Your task to perform on an android device: Do I have any events today? Image 0: 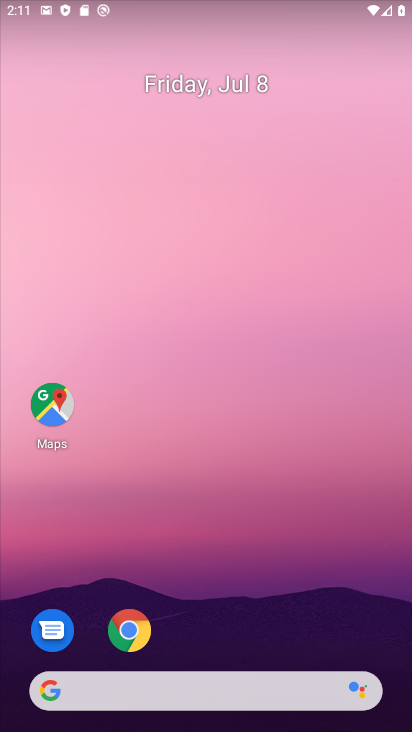
Step 0: drag from (204, 620) to (215, 222)
Your task to perform on an android device: Do I have any events today? Image 1: 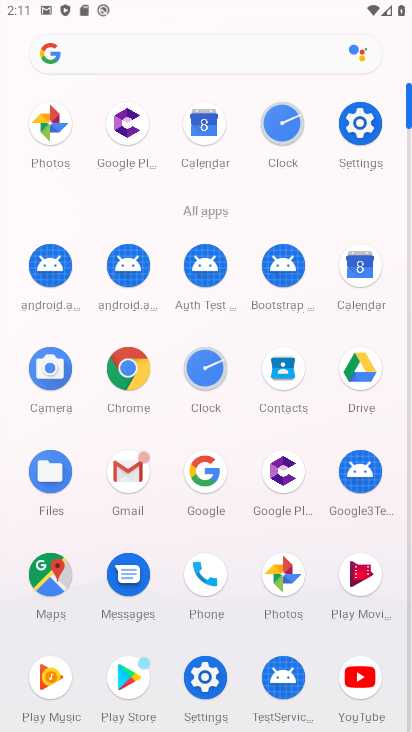
Step 1: click (214, 143)
Your task to perform on an android device: Do I have any events today? Image 2: 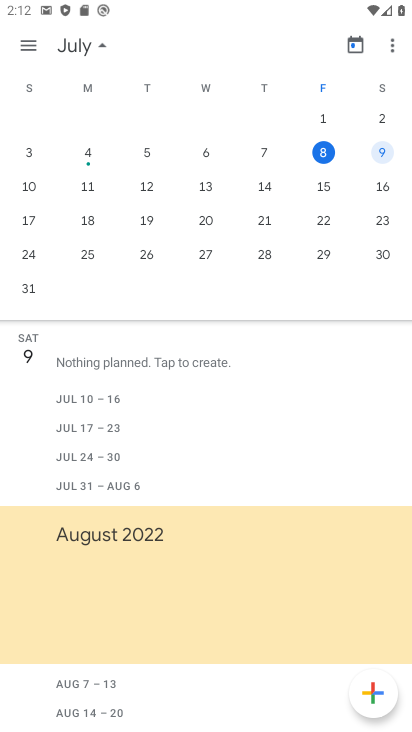
Step 2: click (321, 150)
Your task to perform on an android device: Do I have any events today? Image 3: 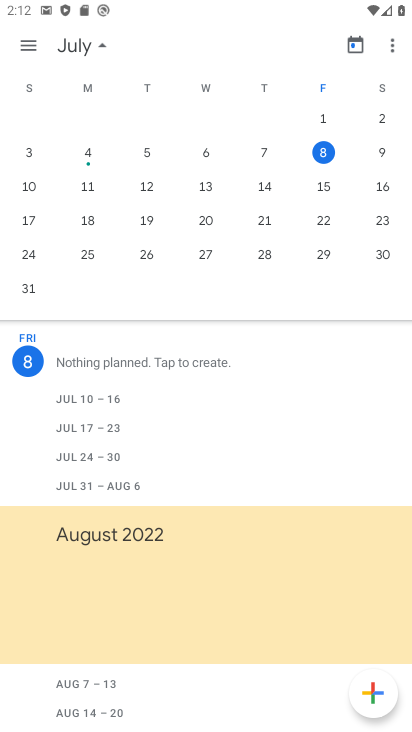
Step 3: click (321, 150)
Your task to perform on an android device: Do I have any events today? Image 4: 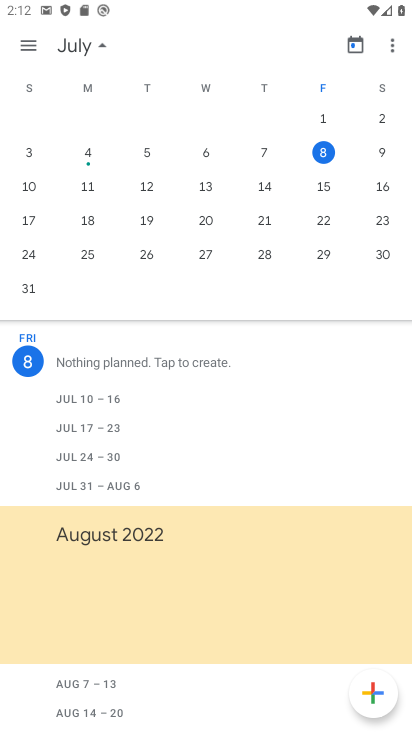
Step 4: task complete